Your task to perform on an android device: Open my contact list Image 0: 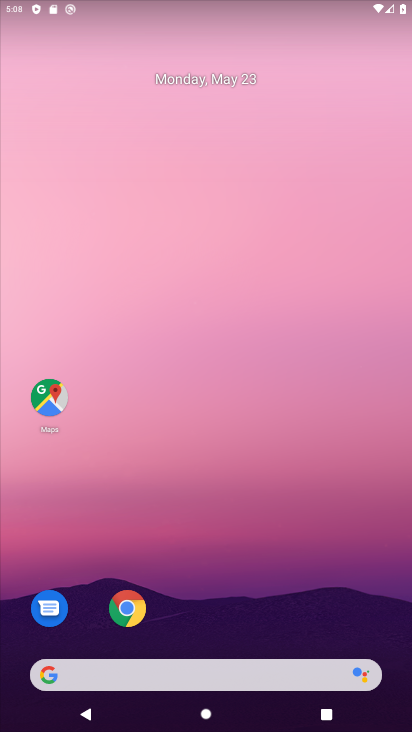
Step 0: drag from (190, 619) to (183, 235)
Your task to perform on an android device: Open my contact list Image 1: 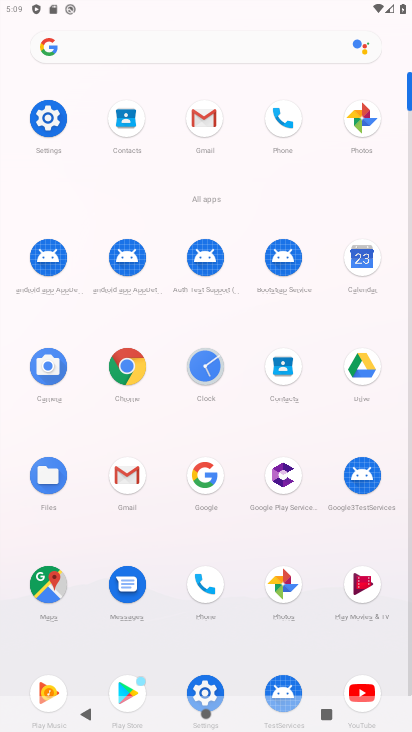
Step 1: click (282, 378)
Your task to perform on an android device: Open my contact list Image 2: 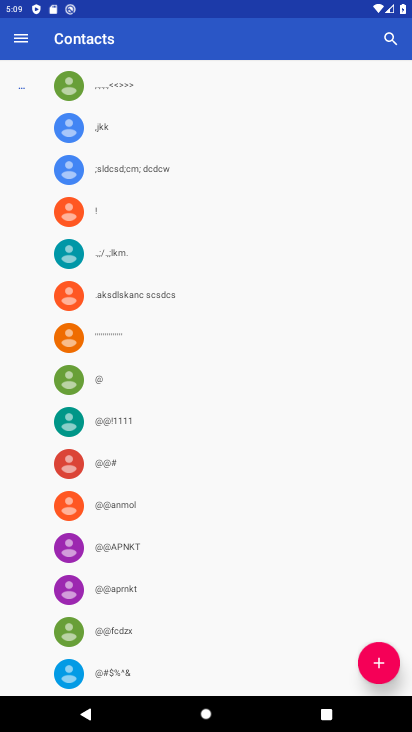
Step 2: task complete